Your task to perform on an android device: Go to privacy settings Image 0: 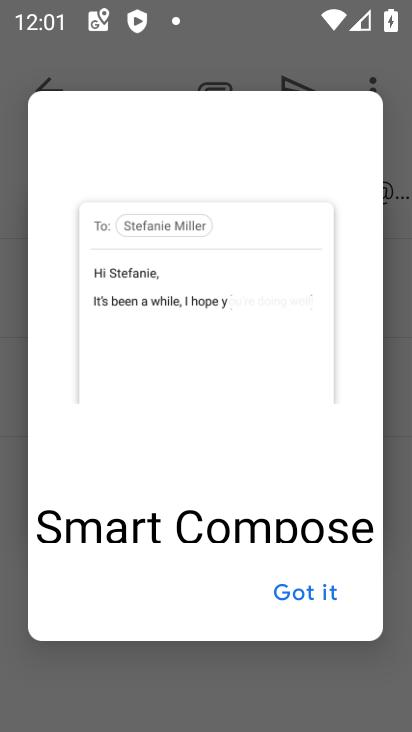
Step 0: press home button
Your task to perform on an android device: Go to privacy settings Image 1: 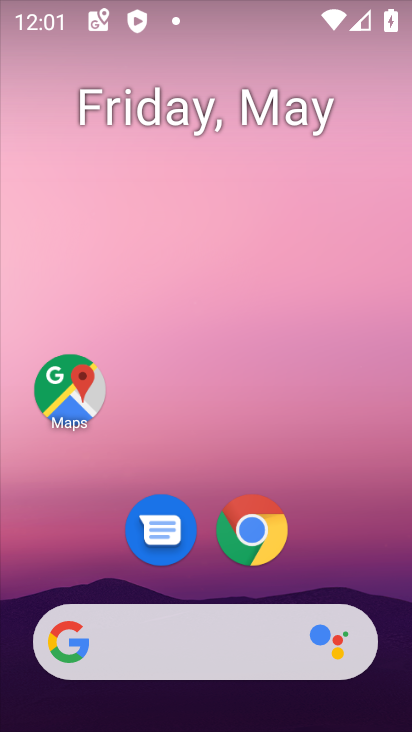
Step 1: drag from (349, 526) to (239, 119)
Your task to perform on an android device: Go to privacy settings Image 2: 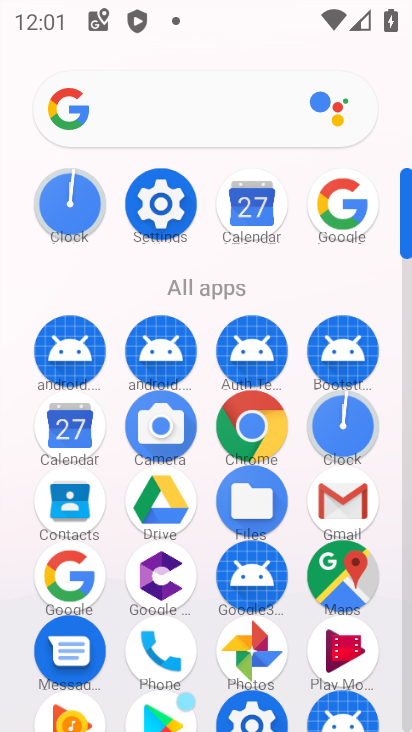
Step 2: click (159, 205)
Your task to perform on an android device: Go to privacy settings Image 3: 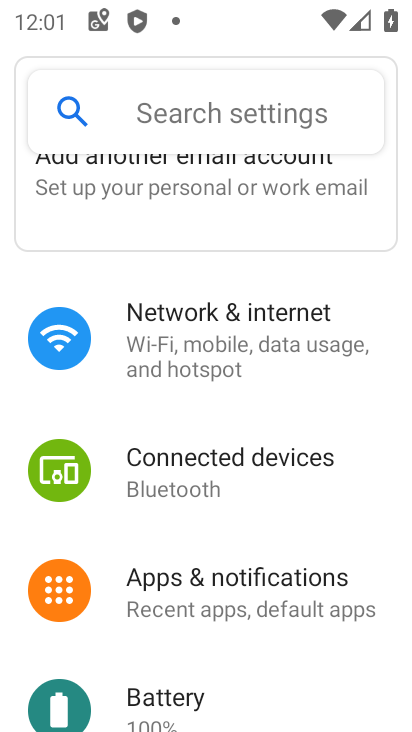
Step 3: drag from (227, 481) to (284, 373)
Your task to perform on an android device: Go to privacy settings Image 4: 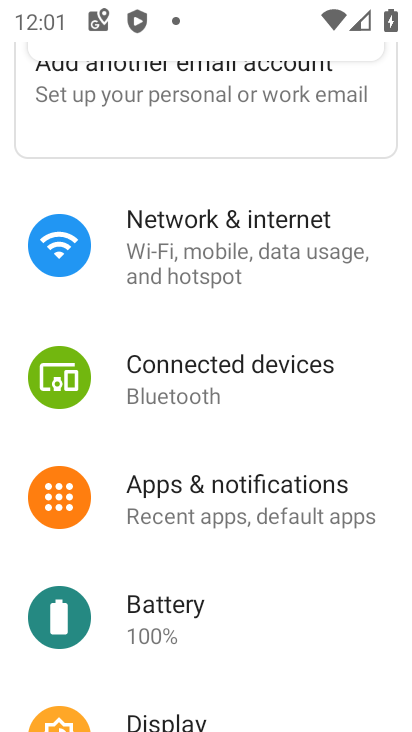
Step 4: drag from (171, 554) to (255, 432)
Your task to perform on an android device: Go to privacy settings Image 5: 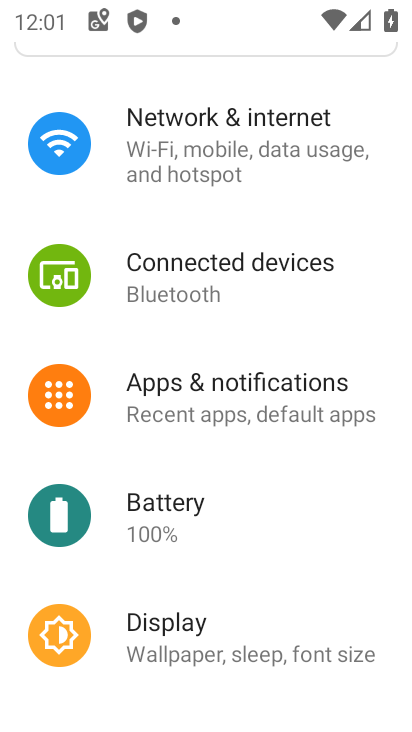
Step 5: drag from (208, 575) to (267, 500)
Your task to perform on an android device: Go to privacy settings Image 6: 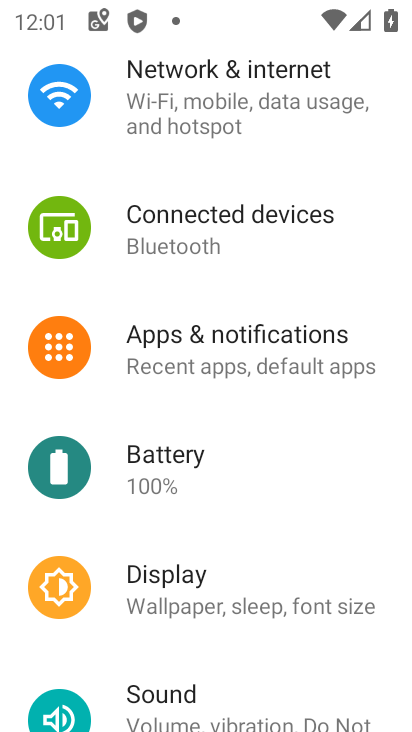
Step 6: drag from (161, 647) to (232, 548)
Your task to perform on an android device: Go to privacy settings Image 7: 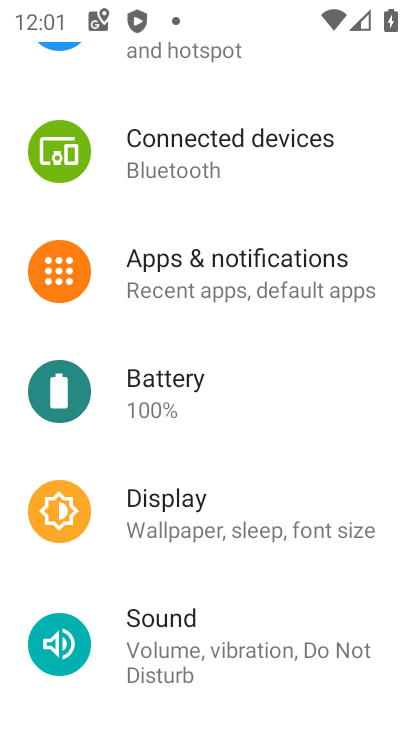
Step 7: drag from (203, 581) to (275, 482)
Your task to perform on an android device: Go to privacy settings Image 8: 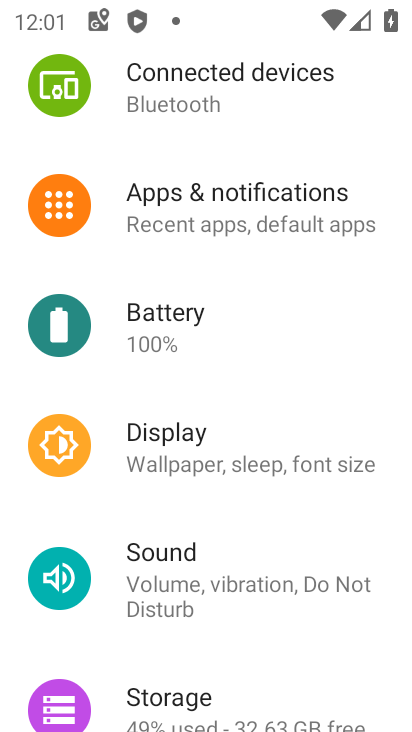
Step 8: drag from (218, 624) to (281, 522)
Your task to perform on an android device: Go to privacy settings Image 9: 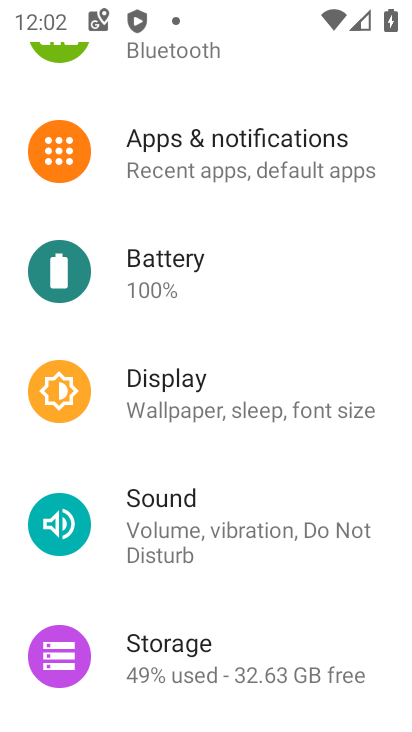
Step 9: drag from (180, 598) to (238, 506)
Your task to perform on an android device: Go to privacy settings Image 10: 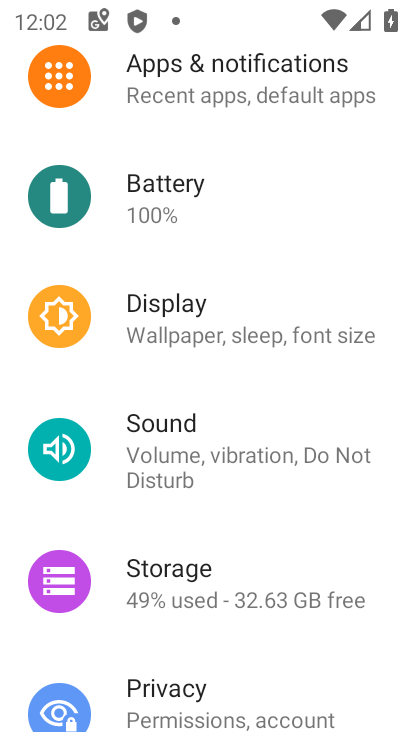
Step 10: drag from (208, 622) to (277, 502)
Your task to perform on an android device: Go to privacy settings Image 11: 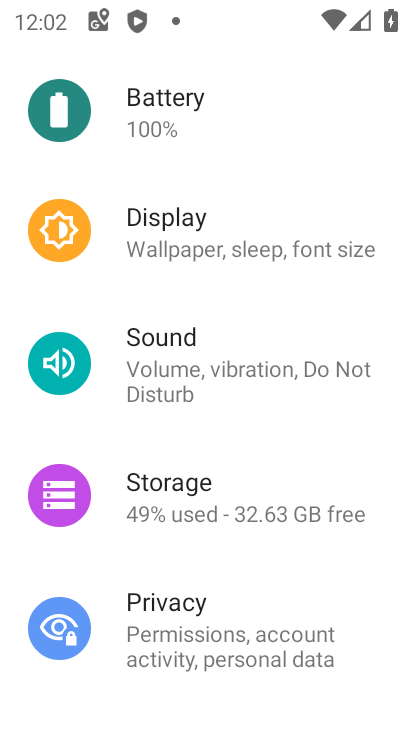
Step 11: click (177, 613)
Your task to perform on an android device: Go to privacy settings Image 12: 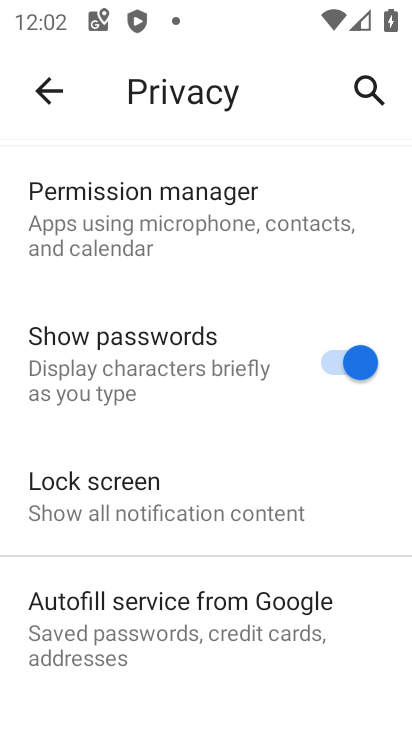
Step 12: task complete